Your task to perform on an android device: Open calendar and show me the fourth week of next month Image 0: 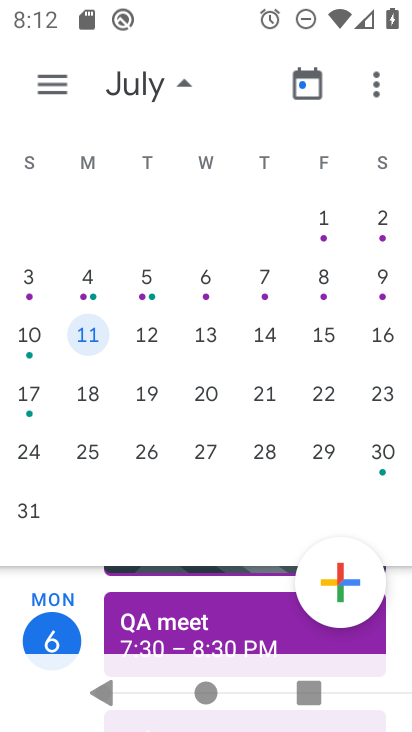
Step 0: press home button
Your task to perform on an android device: Open calendar and show me the fourth week of next month Image 1: 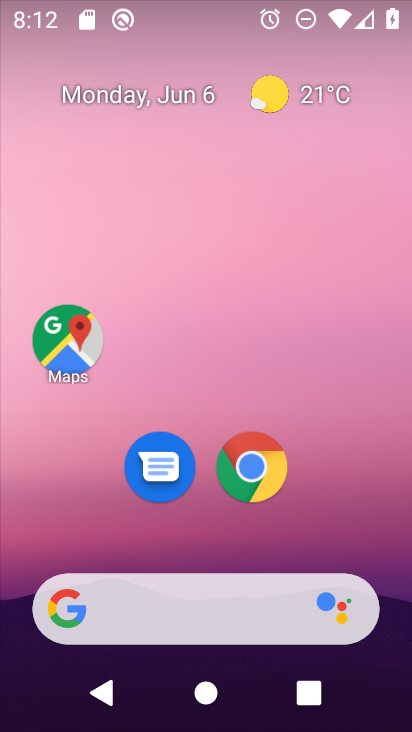
Step 1: drag from (373, 530) to (365, 158)
Your task to perform on an android device: Open calendar and show me the fourth week of next month Image 2: 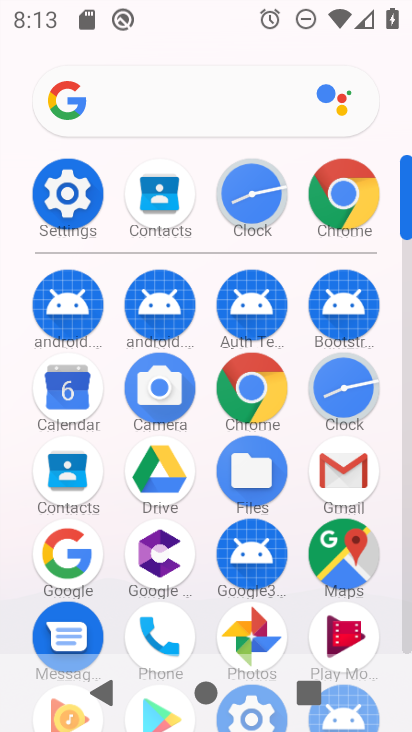
Step 2: click (77, 391)
Your task to perform on an android device: Open calendar and show me the fourth week of next month Image 3: 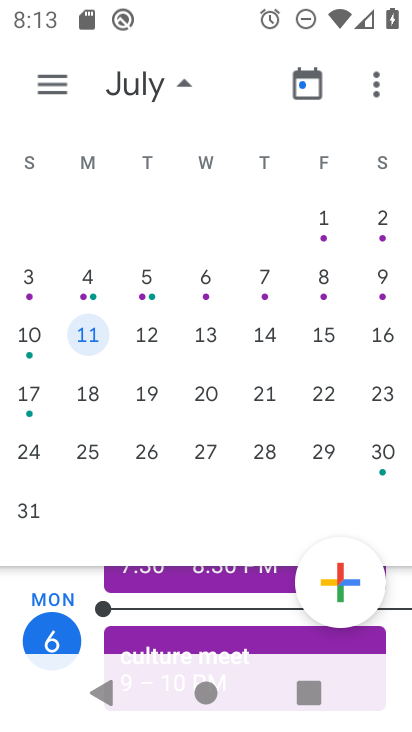
Step 3: click (91, 453)
Your task to perform on an android device: Open calendar and show me the fourth week of next month Image 4: 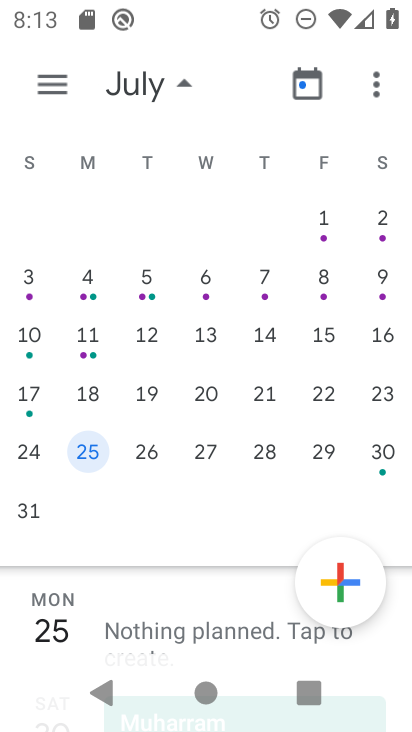
Step 4: task complete